Your task to perform on an android device: What's the weather going to be this weekend? Image 0: 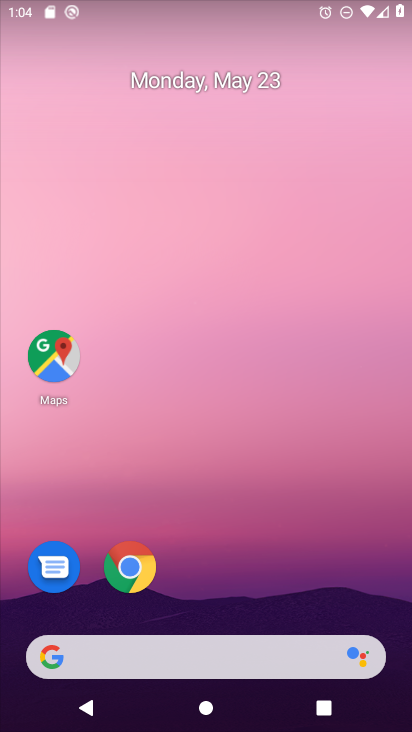
Step 0: click (223, 669)
Your task to perform on an android device: What's the weather going to be this weekend? Image 1: 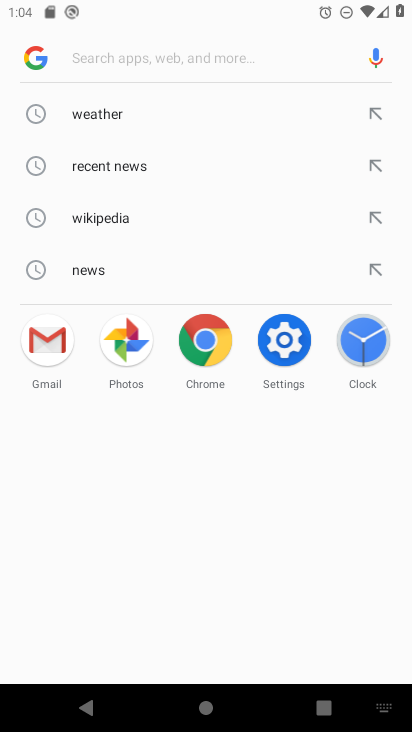
Step 1: click (109, 124)
Your task to perform on an android device: What's the weather going to be this weekend? Image 2: 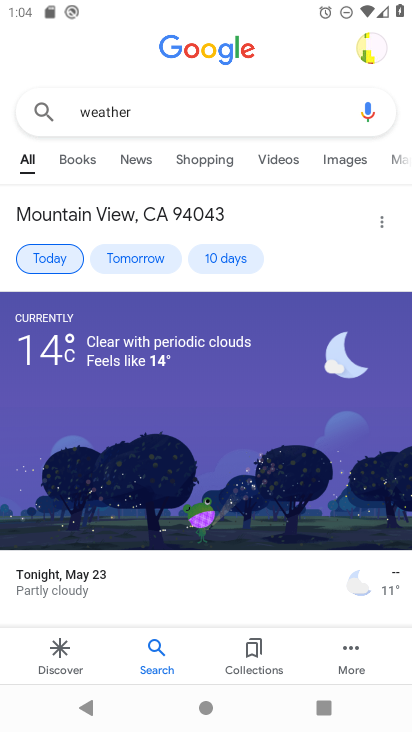
Step 2: click (225, 257)
Your task to perform on an android device: What's the weather going to be this weekend? Image 3: 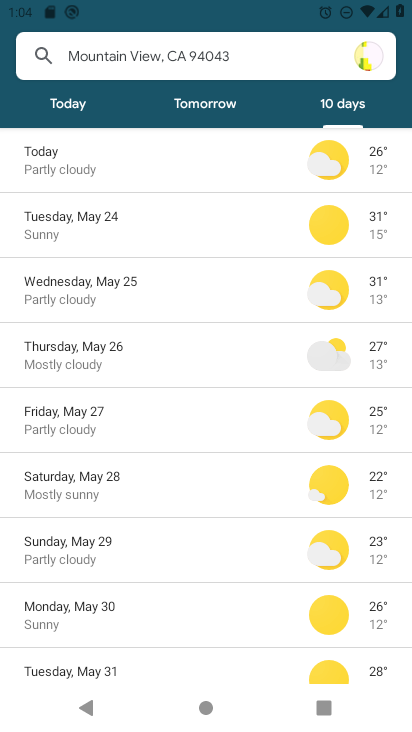
Step 3: task complete